Your task to perform on an android device: What's on my calendar tomorrow? Image 0: 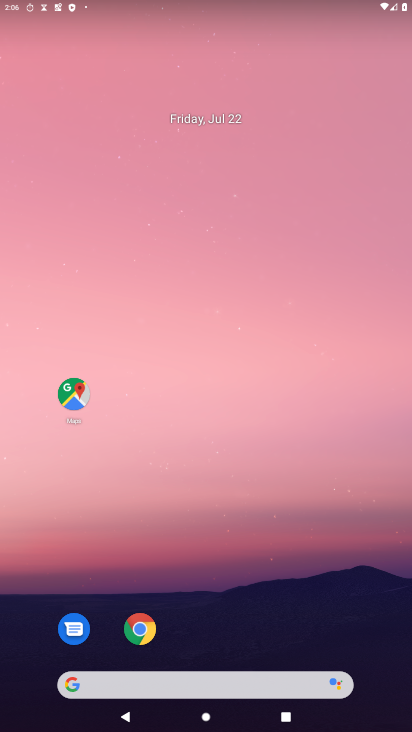
Step 0: drag from (303, 633) to (375, 2)
Your task to perform on an android device: What's on my calendar tomorrow? Image 1: 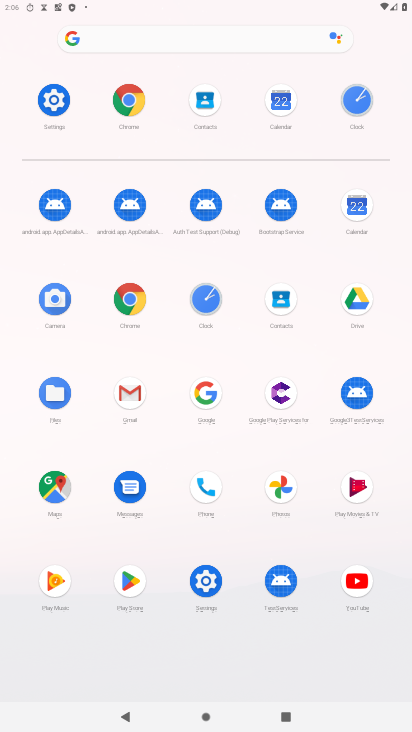
Step 1: click (370, 203)
Your task to perform on an android device: What's on my calendar tomorrow? Image 2: 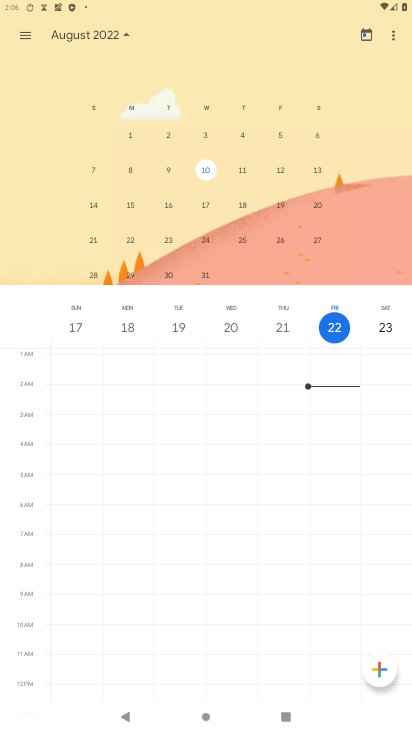
Step 2: drag from (67, 235) to (370, 206)
Your task to perform on an android device: What's on my calendar tomorrow? Image 3: 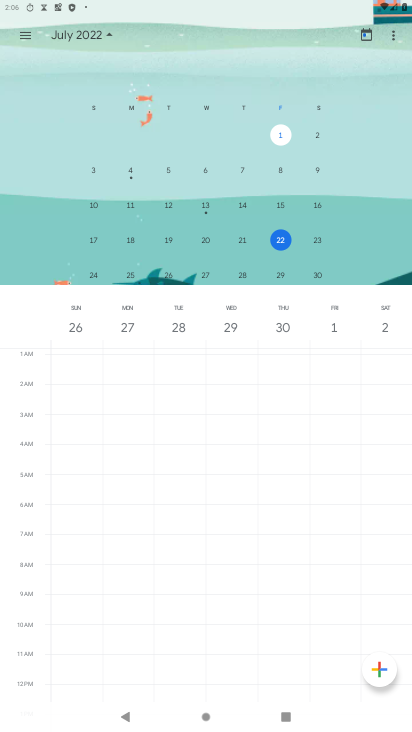
Step 3: click (319, 238)
Your task to perform on an android device: What's on my calendar tomorrow? Image 4: 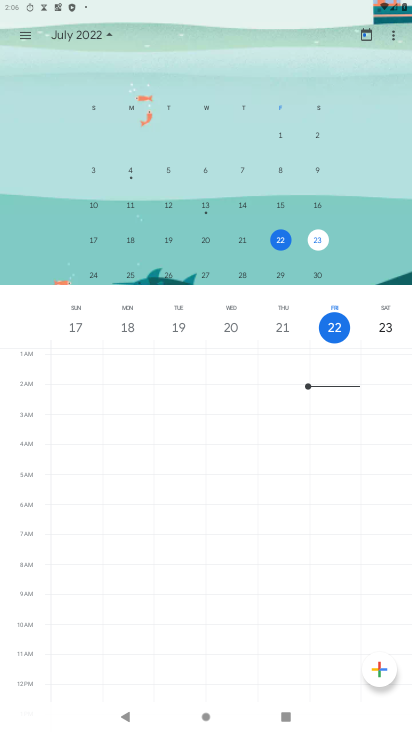
Step 4: task complete